Your task to perform on an android device: Open Chrome and go to the settings page Image 0: 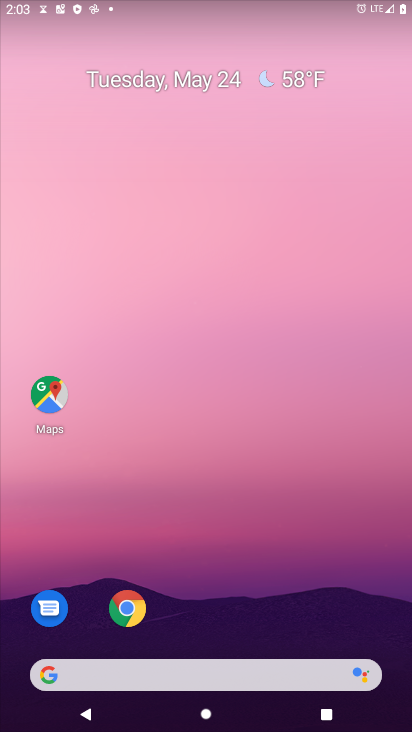
Step 0: press home button
Your task to perform on an android device: Open Chrome and go to the settings page Image 1: 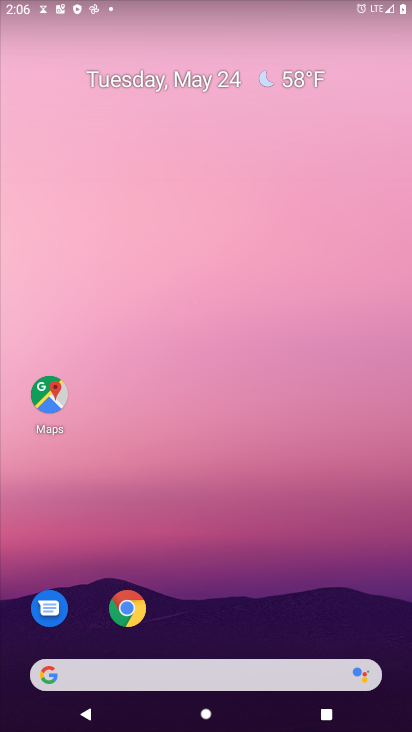
Step 1: drag from (272, 697) to (145, 161)
Your task to perform on an android device: Open Chrome and go to the settings page Image 2: 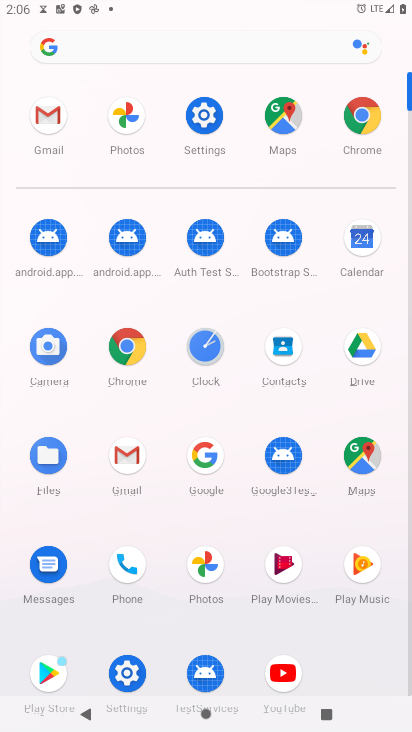
Step 2: click (366, 117)
Your task to perform on an android device: Open Chrome and go to the settings page Image 3: 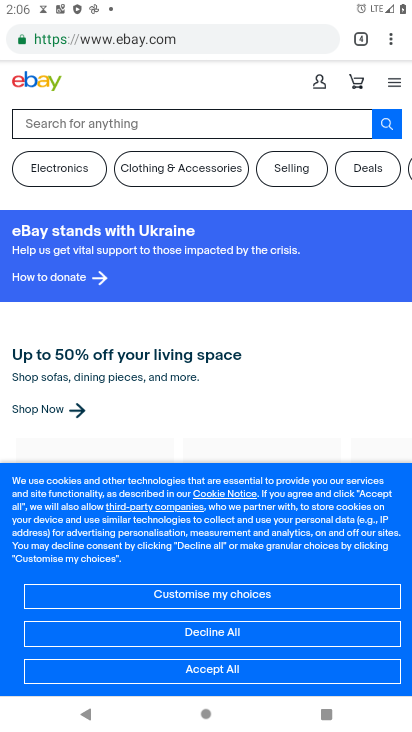
Step 3: click (388, 42)
Your task to perform on an android device: Open Chrome and go to the settings page Image 4: 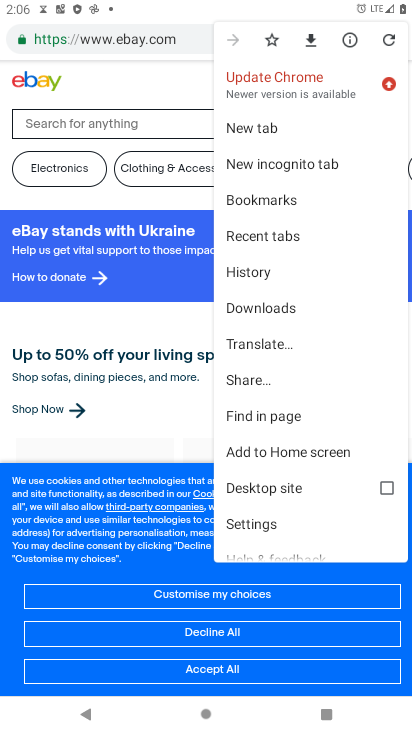
Step 4: click (253, 526)
Your task to perform on an android device: Open Chrome and go to the settings page Image 5: 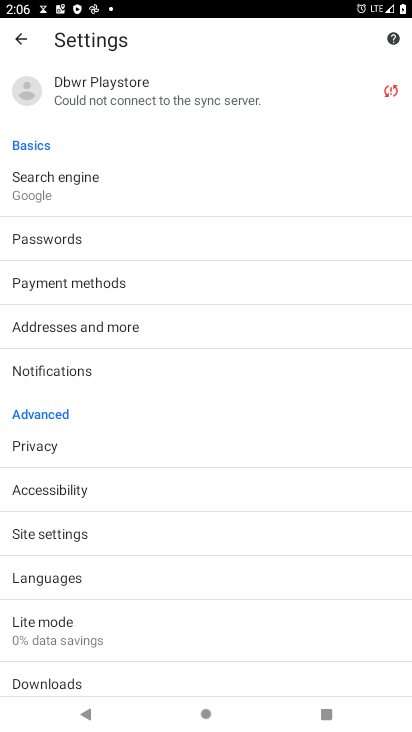
Step 5: task complete